Your task to perform on an android device: turn off data saver in the chrome app Image 0: 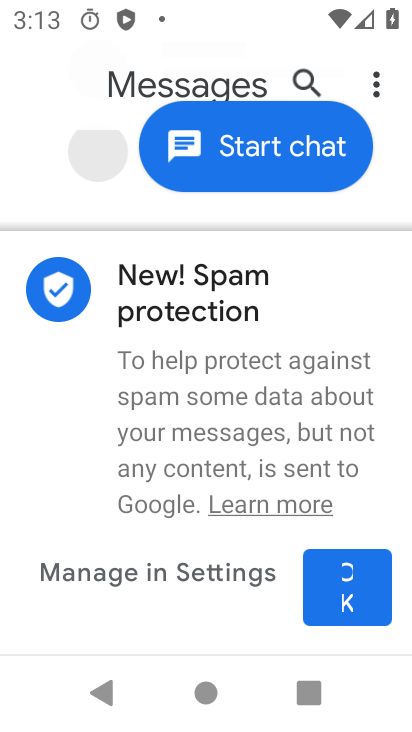
Step 0: press home button
Your task to perform on an android device: turn off data saver in the chrome app Image 1: 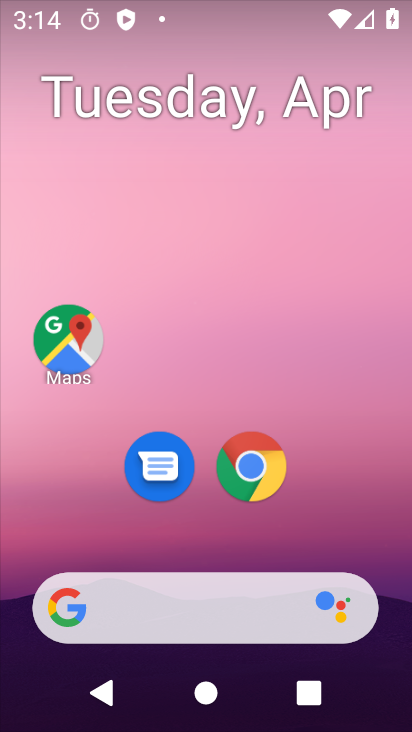
Step 1: drag from (215, 535) to (215, 2)
Your task to perform on an android device: turn off data saver in the chrome app Image 2: 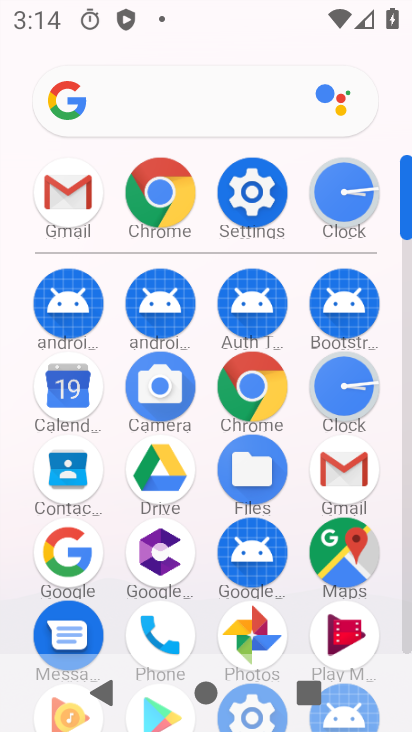
Step 2: click (247, 384)
Your task to perform on an android device: turn off data saver in the chrome app Image 3: 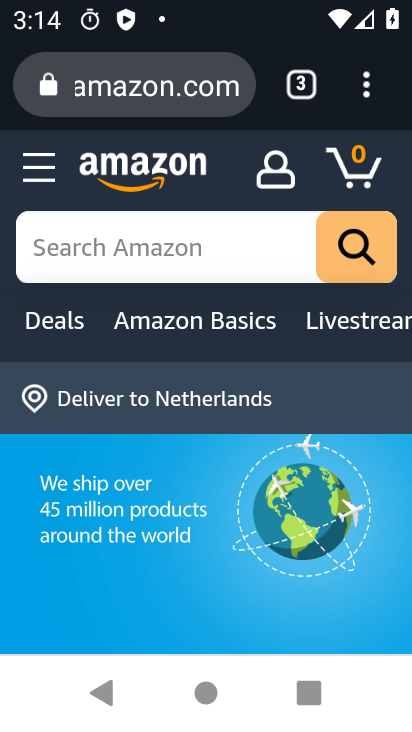
Step 3: click (359, 96)
Your task to perform on an android device: turn off data saver in the chrome app Image 4: 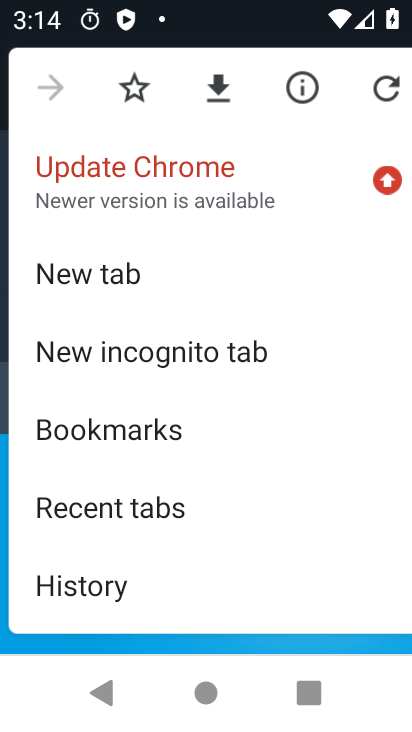
Step 4: drag from (137, 524) to (47, 47)
Your task to perform on an android device: turn off data saver in the chrome app Image 5: 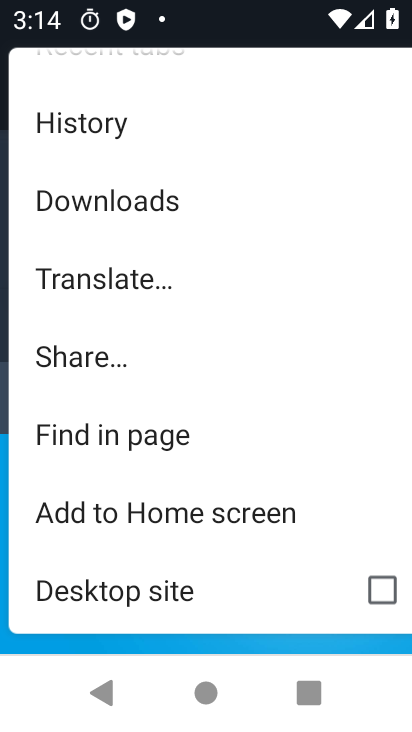
Step 5: drag from (77, 582) to (33, 119)
Your task to perform on an android device: turn off data saver in the chrome app Image 6: 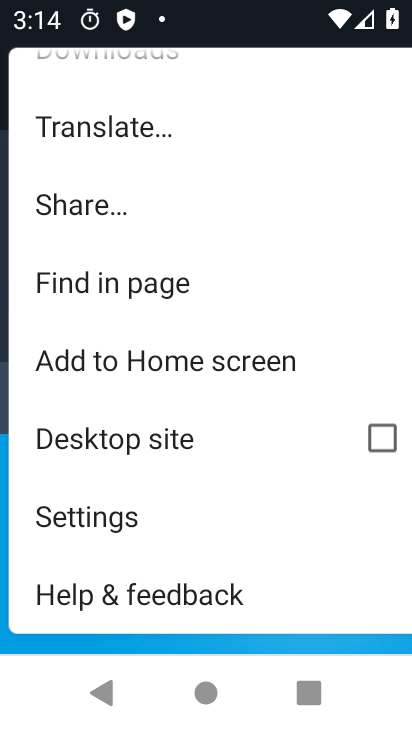
Step 6: click (95, 507)
Your task to perform on an android device: turn off data saver in the chrome app Image 7: 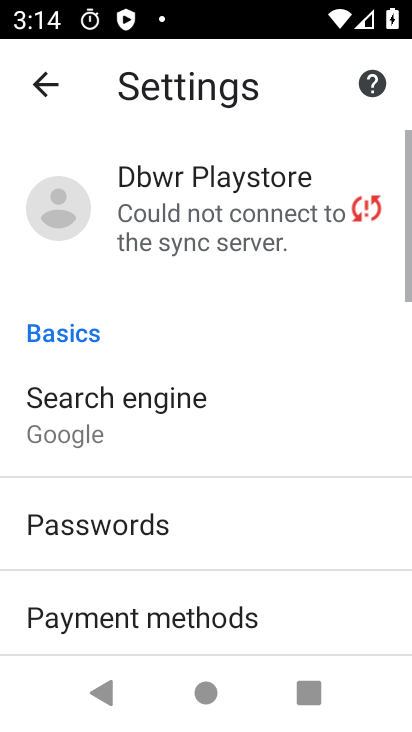
Step 7: drag from (156, 592) to (116, 155)
Your task to perform on an android device: turn off data saver in the chrome app Image 8: 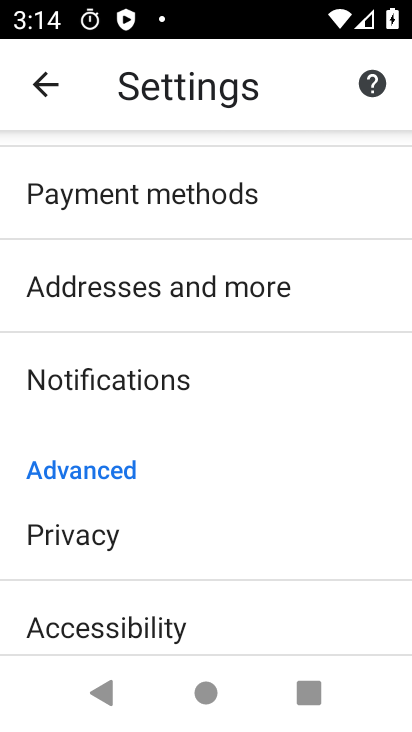
Step 8: drag from (173, 552) to (142, 105)
Your task to perform on an android device: turn off data saver in the chrome app Image 9: 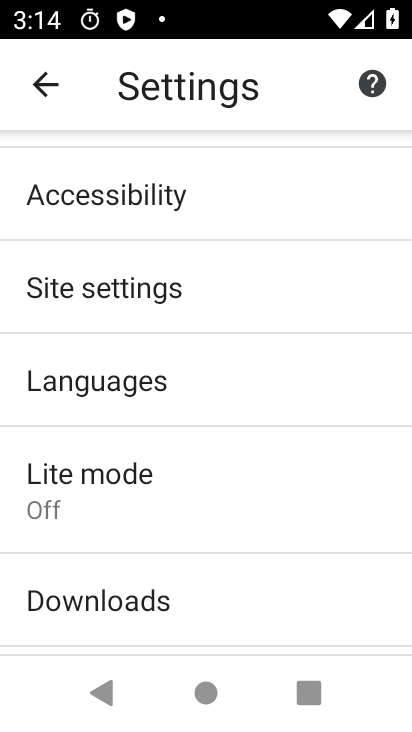
Step 9: click (127, 467)
Your task to perform on an android device: turn off data saver in the chrome app Image 10: 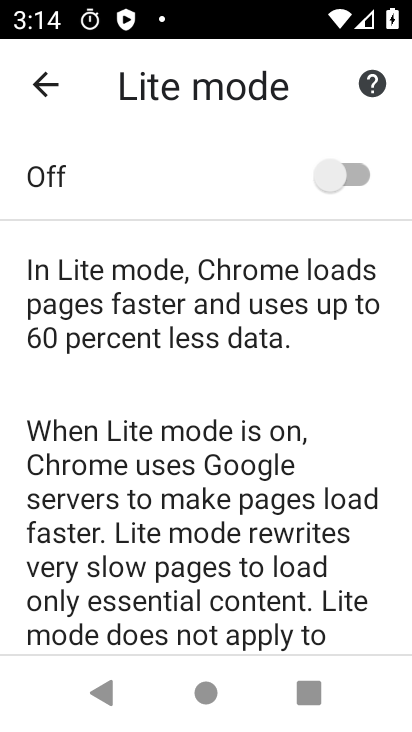
Step 10: task complete